Your task to perform on an android device: Open battery settings Image 0: 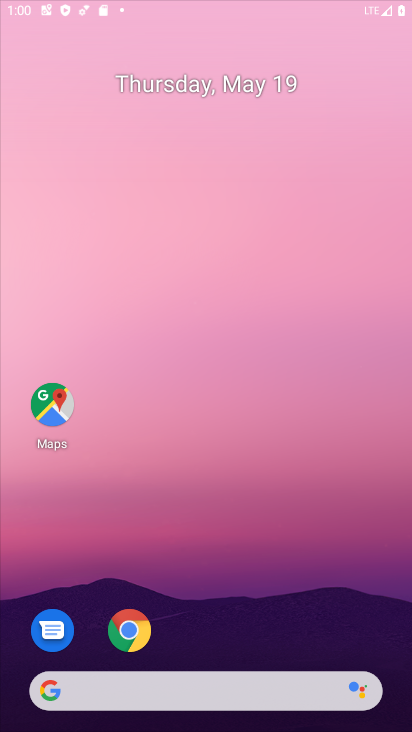
Step 0: click (122, 108)
Your task to perform on an android device: Open battery settings Image 1: 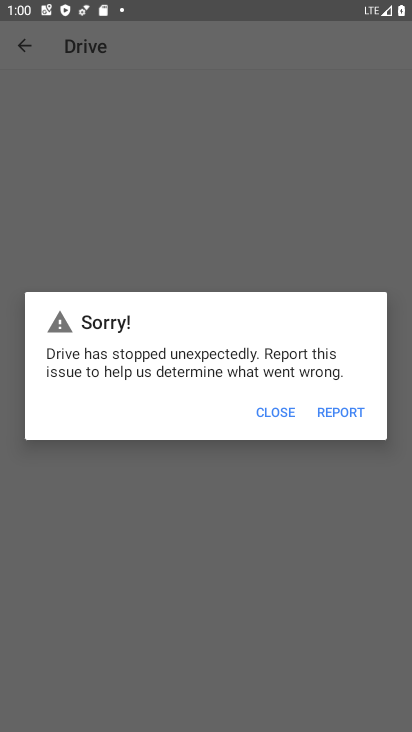
Step 1: press home button
Your task to perform on an android device: Open battery settings Image 2: 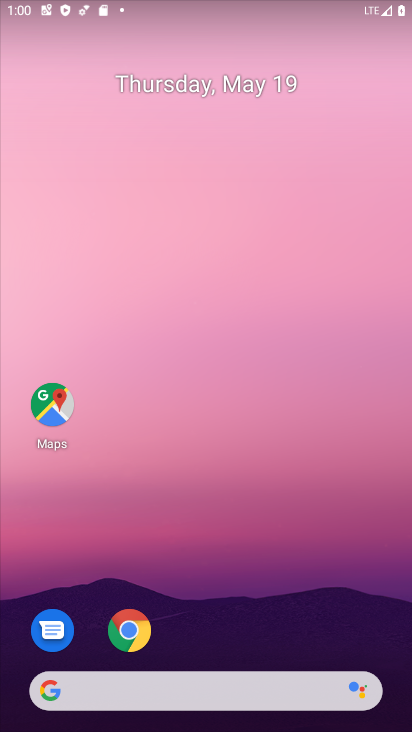
Step 2: drag from (170, 678) to (47, 37)
Your task to perform on an android device: Open battery settings Image 3: 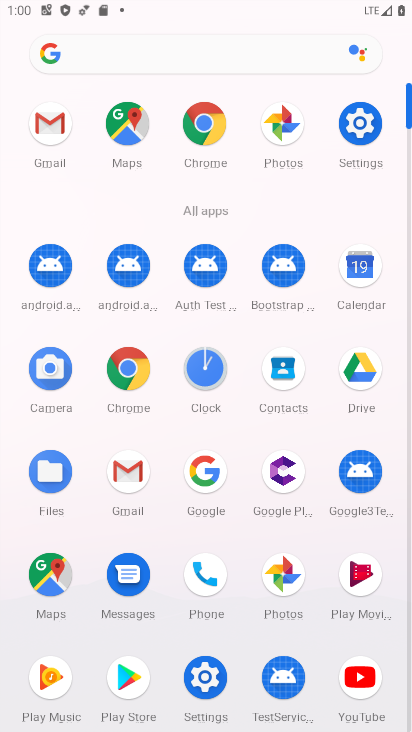
Step 3: click (365, 110)
Your task to perform on an android device: Open battery settings Image 4: 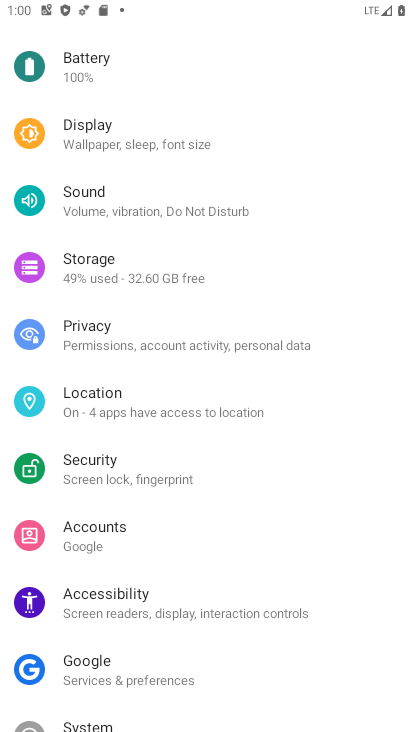
Step 4: drag from (226, 612) to (168, 143)
Your task to perform on an android device: Open battery settings Image 5: 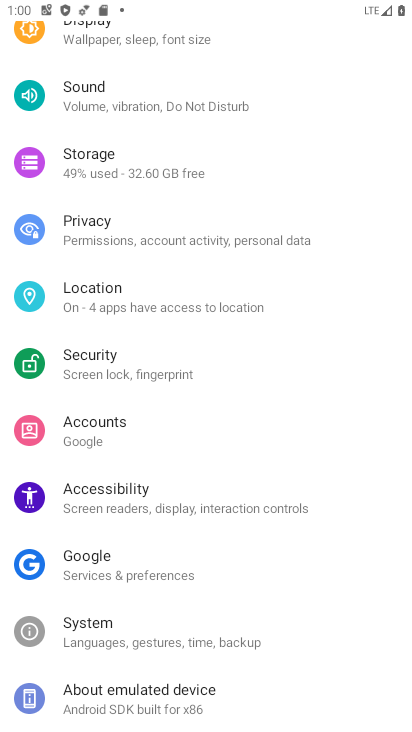
Step 5: drag from (96, 93) to (88, 566)
Your task to perform on an android device: Open battery settings Image 6: 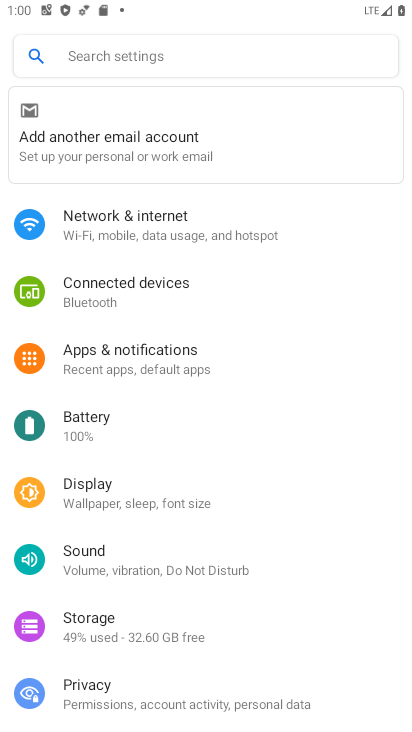
Step 6: click (91, 410)
Your task to perform on an android device: Open battery settings Image 7: 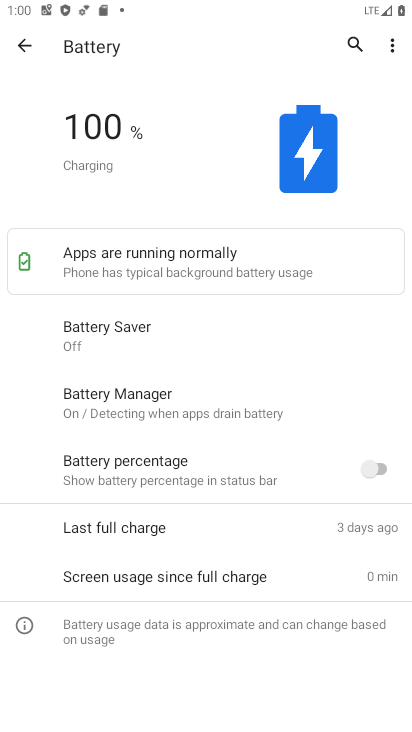
Step 7: task complete